Your task to perform on an android device: turn off notifications in google photos Image 0: 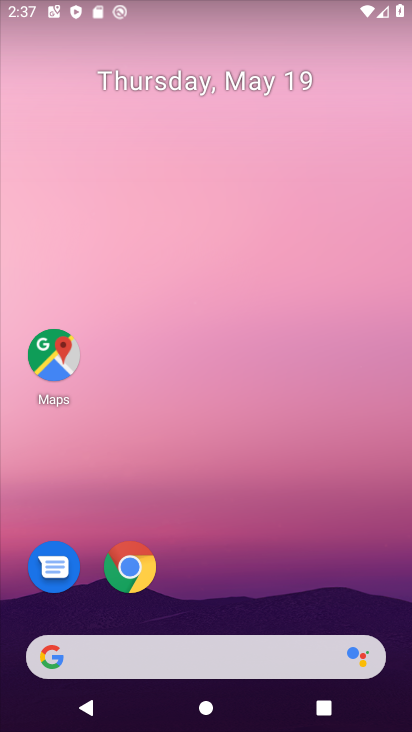
Step 0: drag from (221, 727) to (226, 247)
Your task to perform on an android device: turn off notifications in google photos Image 1: 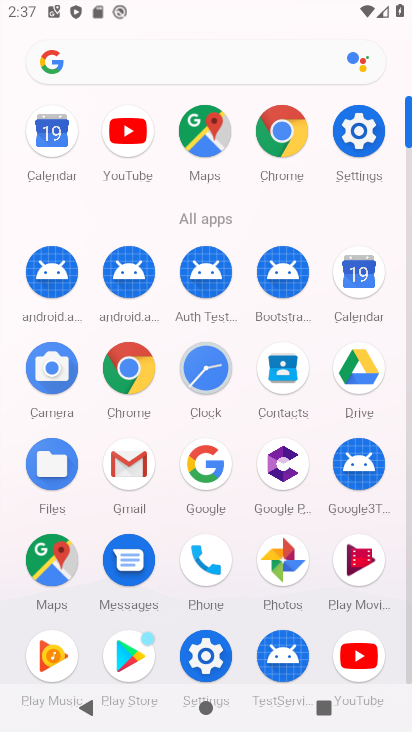
Step 1: click (280, 557)
Your task to perform on an android device: turn off notifications in google photos Image 2: 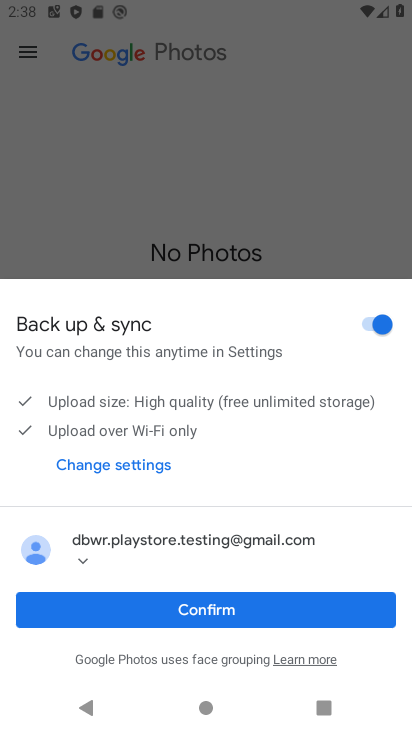
Step 2: click (241, 609)
Your task to perform on an android device: turn off notifications in google photos Image 3: 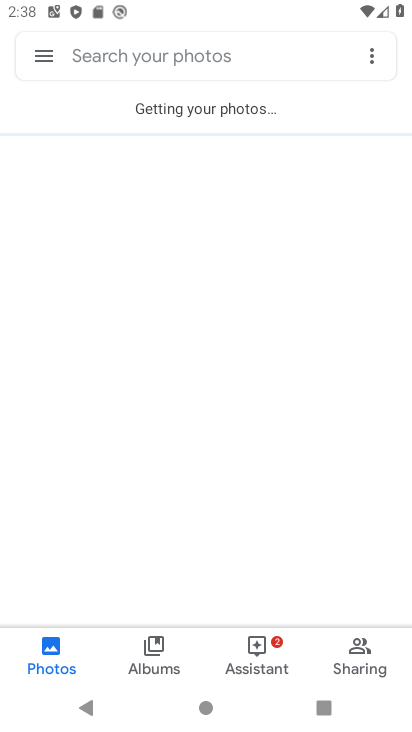
Step 3: click (50, 52)
Your task to perform on an android device: turn off notifications in google photos Image 4: 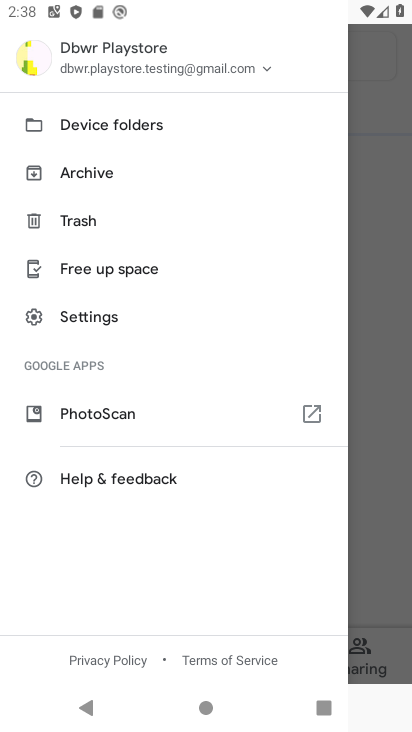
Step 4: click (91, 314)
Your task to perform on an android device: turn off notifications in google photos Image 5: 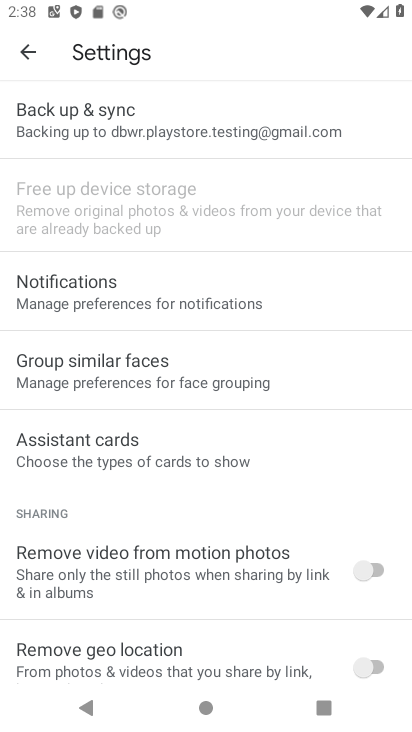
Step 5: click (101, 295)
Your task to perform on an android device: turn off notifications in google photos Image 6: 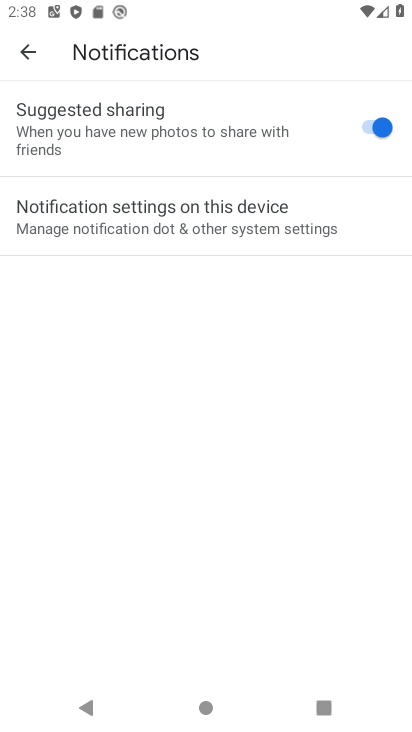
Step 6: click (131, 214)
Your task to perform on an android device: turn off notifications in google photos Image 7: 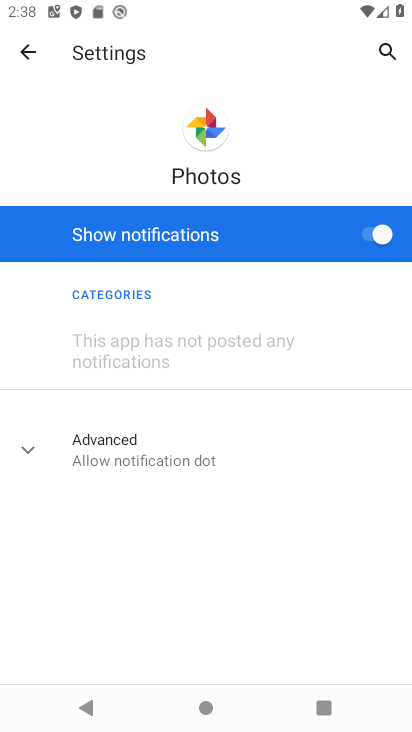
Step 7: click (372, 232)
Your task to perform on an android device: turn off notifications in google photos Image 8: 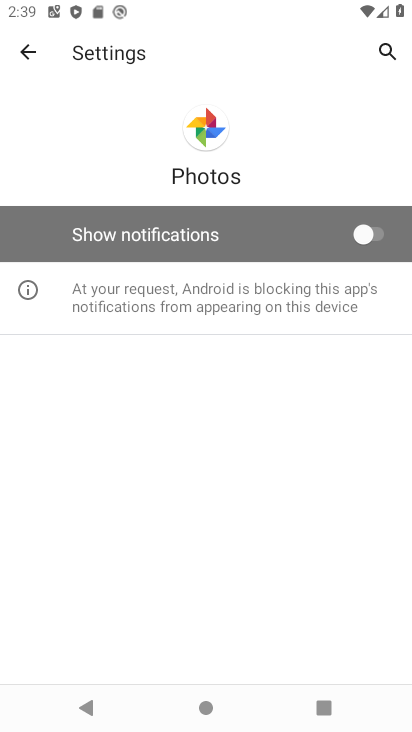
Step 8: task complete